Your task to perform on an android device: Open ESPN.com Image 0: 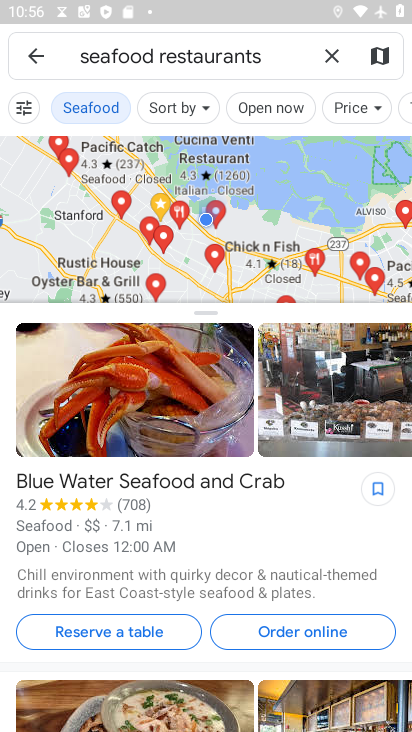
Step 0: press back button
Your task to perform on an android device: Open ESPN.com Image 1: 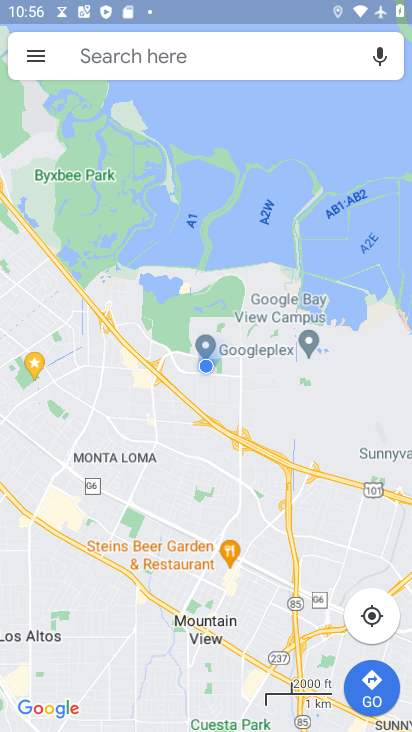
Step 1: press back button
Your task to perform on an android device: Open ESPN.com Image 2: 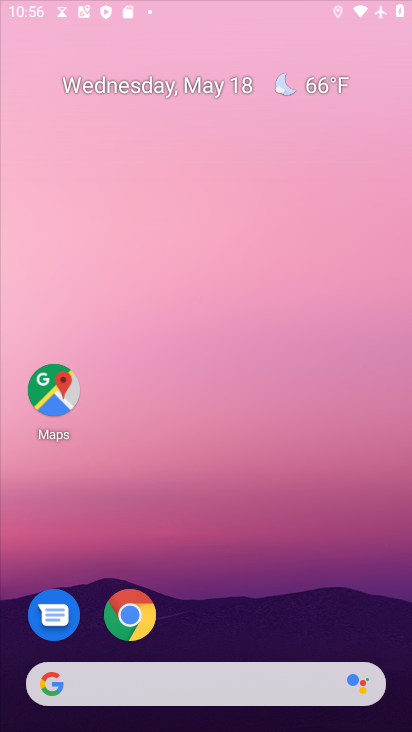
Step 2: press back button
Your task to perform on an android device: Open ESPN.com Image 3: 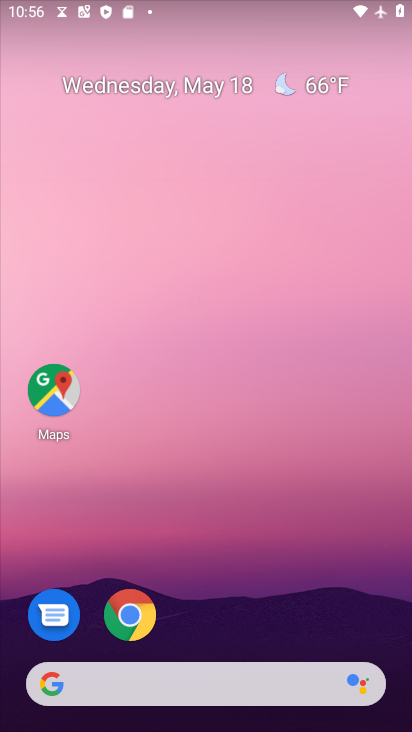
Step 3: drag from (263, 568) to (226, 37)
Your task to perform on an android device: Open ESPN.com Image 4: 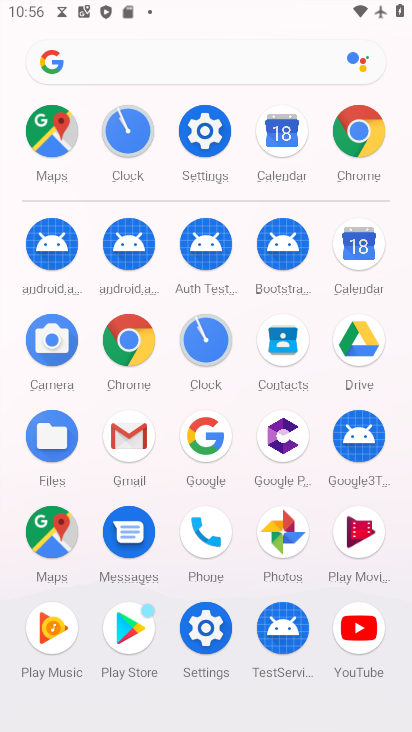
Step 4: click (125, 337)
Your task to perform on an android device: Open ESPN.com Image 5: 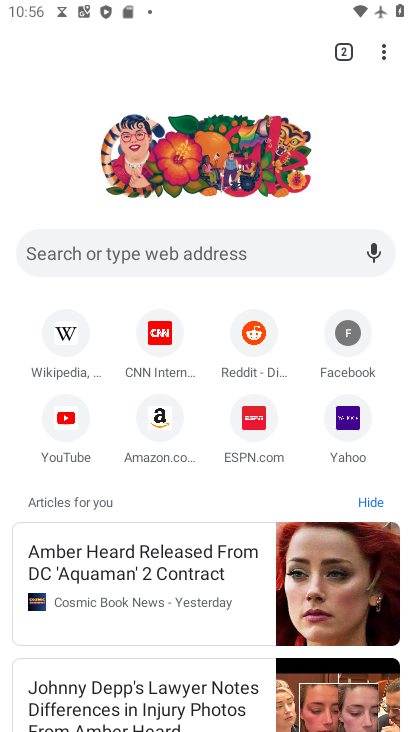
Step 5: click (170, 259)
Your task to perform on an android device: Open ESPN.com Image 6: 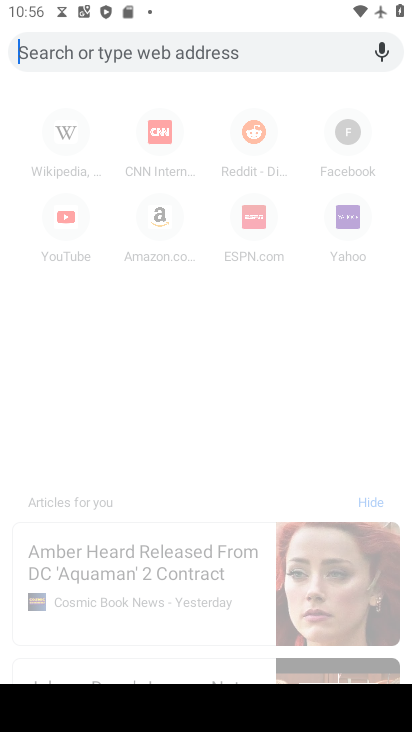
Step 6: type "ESPN.com"
Your task to perform on an android device: Open ESPN.com Image 7: 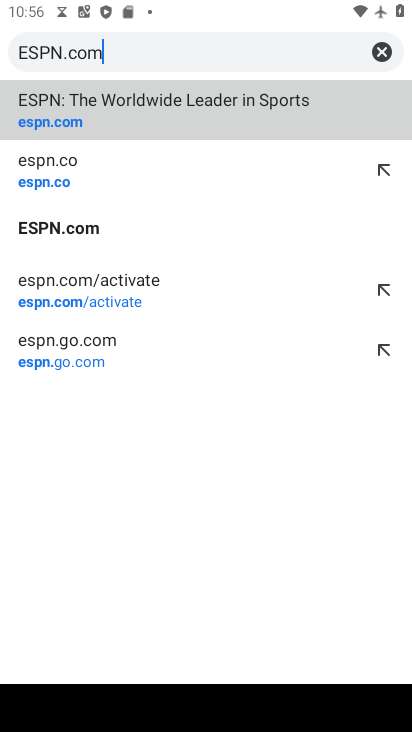
Step 7: type ""
Your task to perform on an android device: Open ESPN.com Image 8: 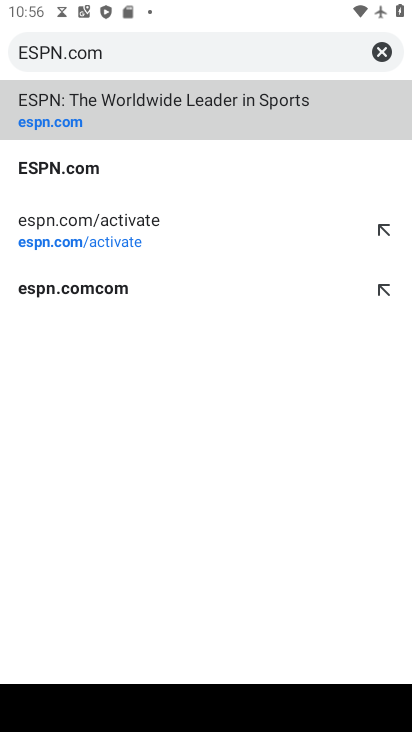
Step 8: click (109, 96)
Your task to perform on an android device: Open ESPN.com Image 9: 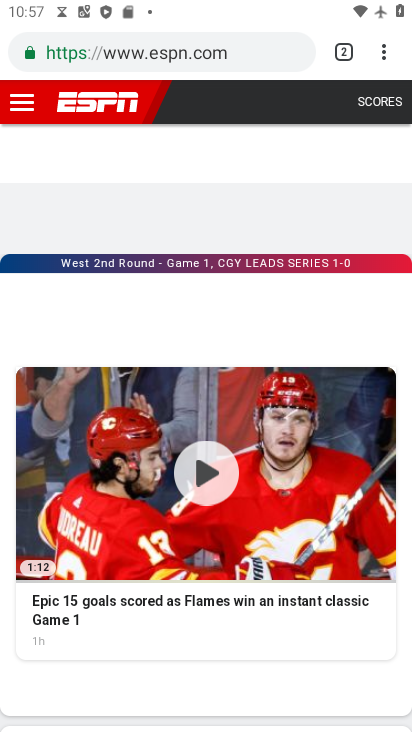
Step 9: task complete